Your task to perform on an android device: When is my next meeting? Image 0: 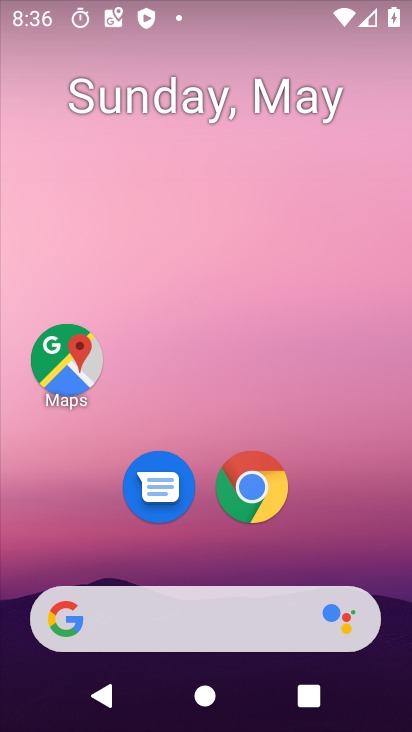
Step 0: drag from (93, 397) to (226, 116)
Your task to perform on an android device: When is my next meeting? Image 1: 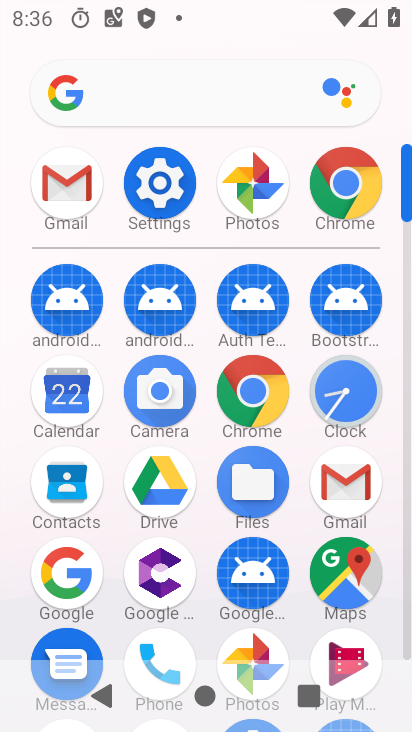
Step 1: click (91, 398)
Your task to perform on an android device: When is my next meeting? Image 2: 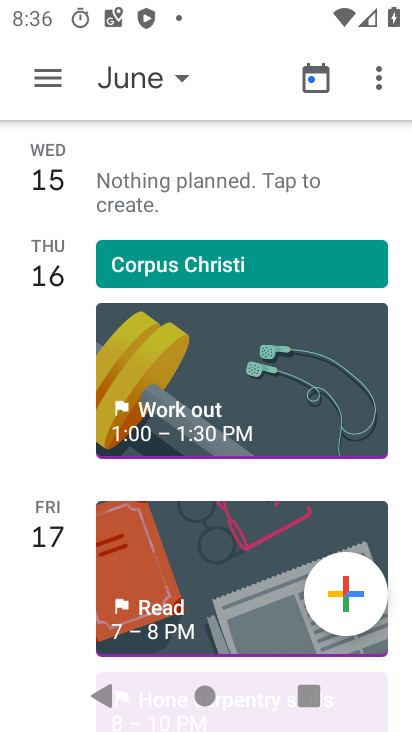
Step 2: task complete